Your task to perform on an android device: Open Maps and search for coffee Image 0: 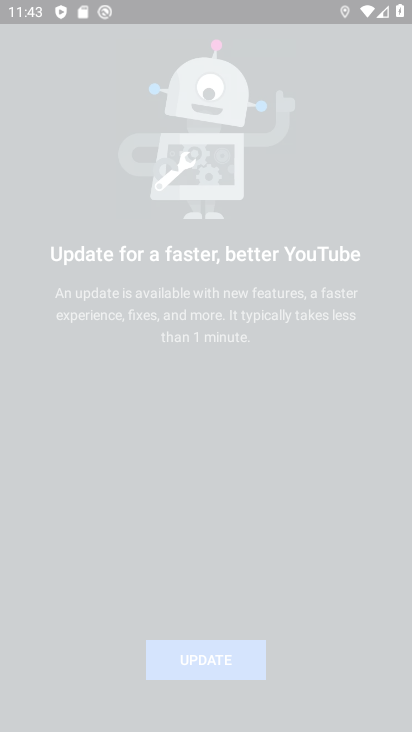
Step 0: drag from (206, 634) to (70, 251)
Your task to perform on an android device: Open Maps and search for coffee Image 1: 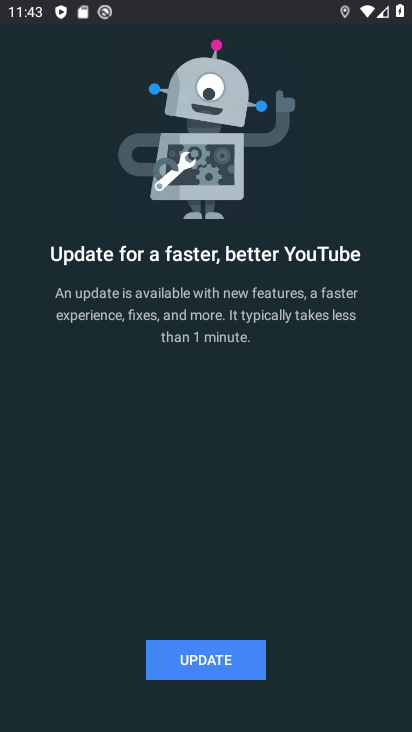
Step 1: press home button
Your task to perform on an android device: Open Maps and search for coffee Image 2: 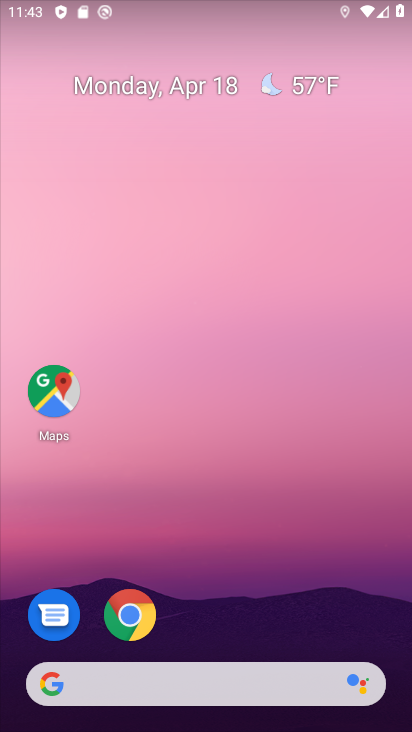
Step 2: click (73, 399)
Your task to perform on an android device: Open Maps and search for coffee Image 3: 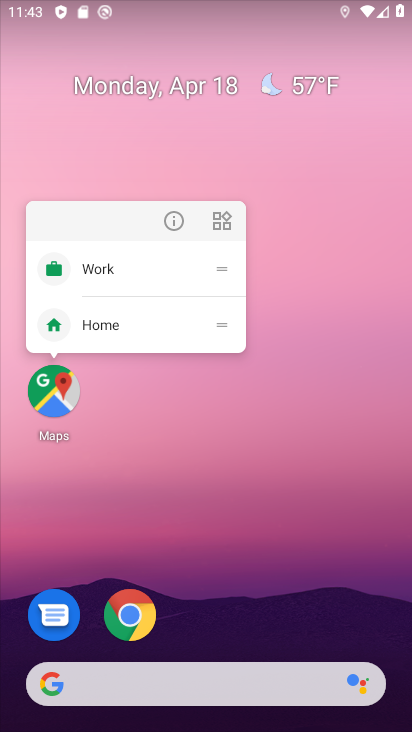
Step 3: click (52, 412)
Your task to perform on an android device: Open Maps and search for coffee Image 4: 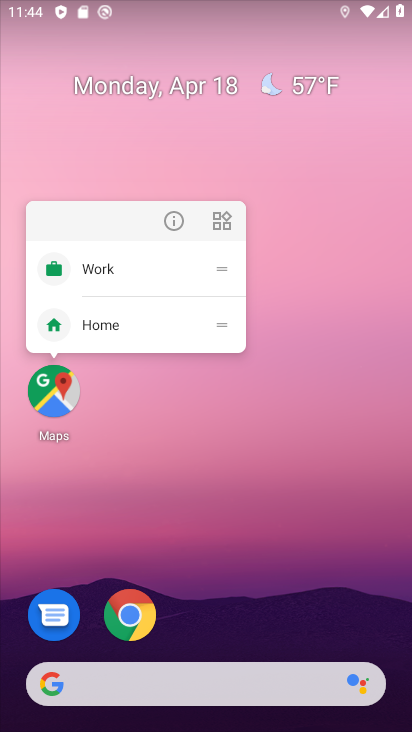
Step 4: click (58, 409)
Your task to perform on an android device: Open Maps and search for coffee Image 5: 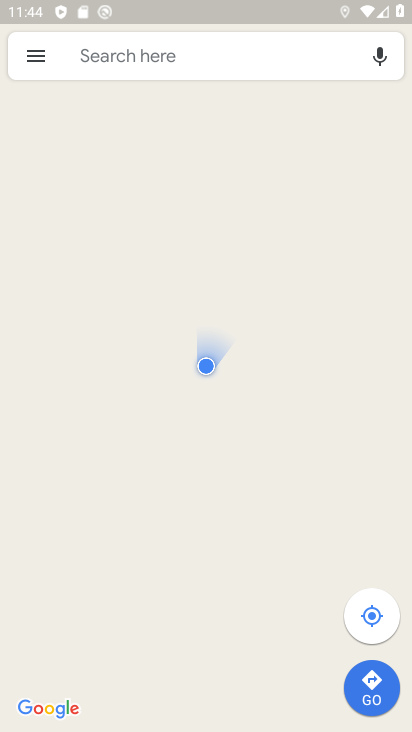
Step 5: click (132, 72)
Your task to perform on an android device: Open Maps and search for coffee Image 6: 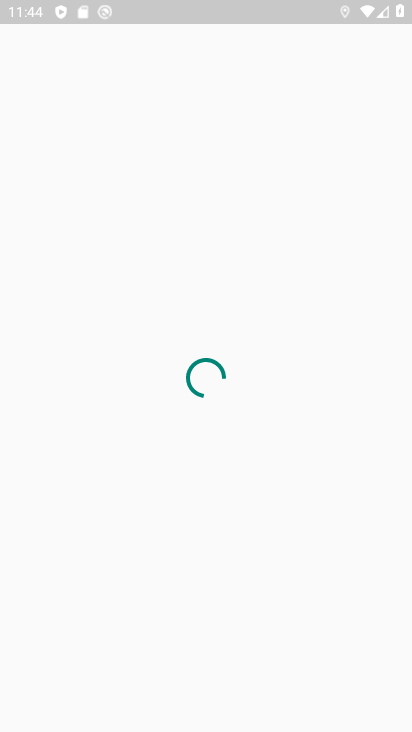
Step 6: type "coffee"
Your task to perform on an android device: Open Maps and search for coffee Image 7: 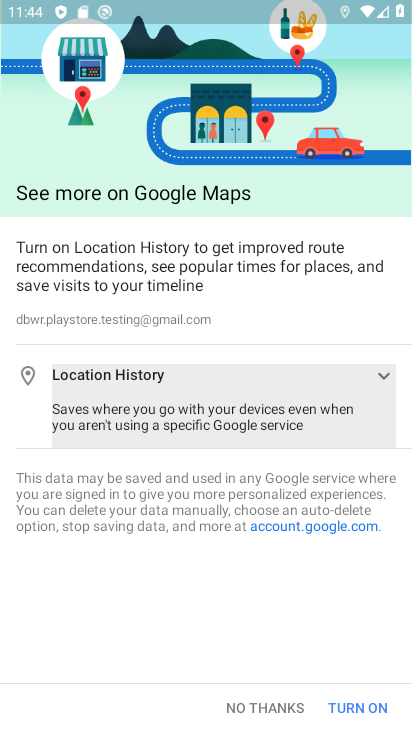
Step 7: click (382, 701)
Your task to perform on an android device: Open Maps and search for coffee Image 8: 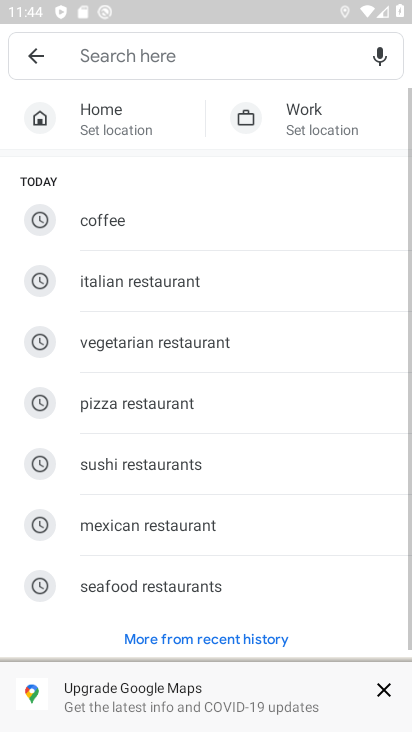
Step 8: click (196, 52)
Your task to perform on an android device: Open Maps and search for coffee Image 9: 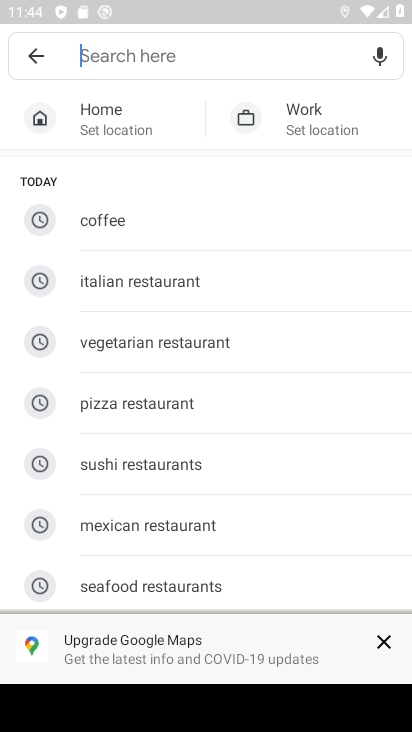
Step 9: type "coffee"
Your task to perform on an android device: Open Maps and search for coffee Image 10: 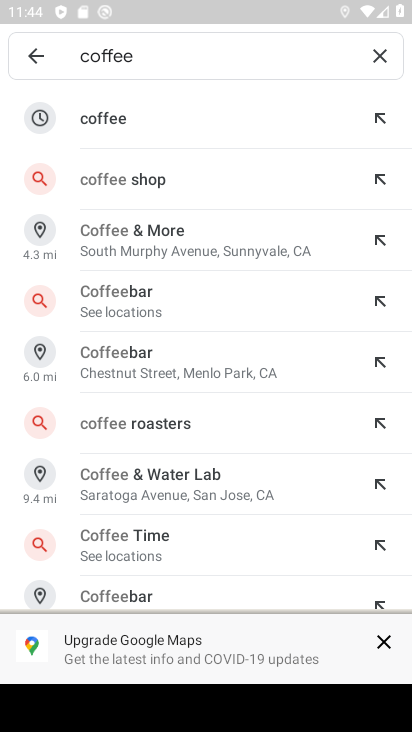
Step 10: click (130, 116)
Your task to perform on an android device: Open Maps and search for coffee Image 11: 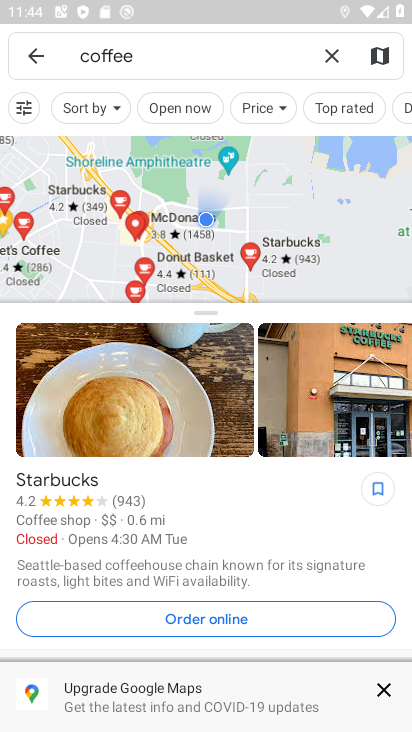
Step 11: task complete